Your task to perform on an android device: check the backup settings in the google photos Image 0: 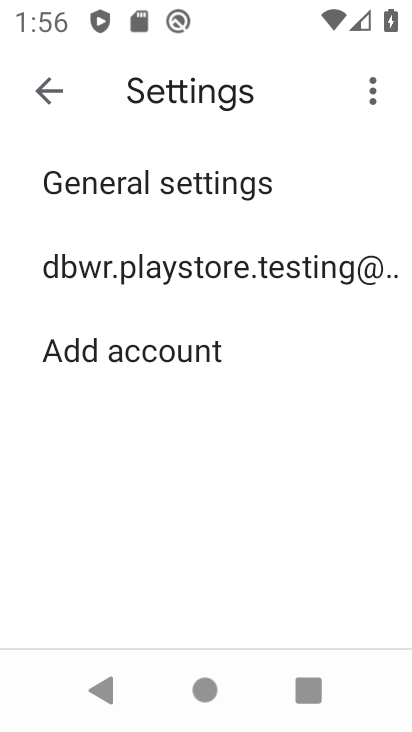
Step 0: press home button
Your task to perform on an android device: check the backup settings in the google photos Image 1: 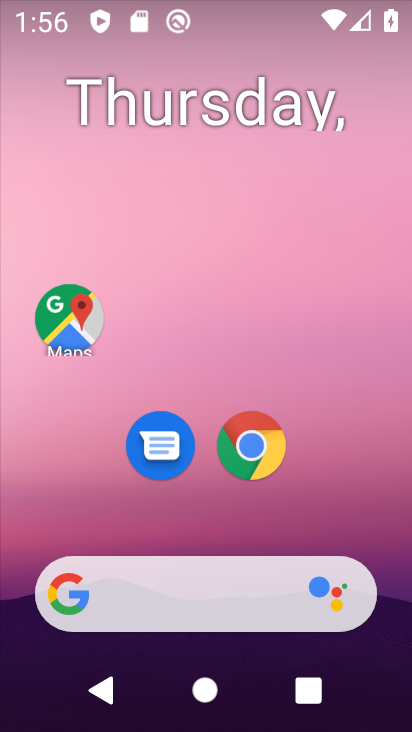
Step 1: drag from (12, 524) to (231, 155)
Your task to perform on an android device: check the backup settings in the google photos Image 2: 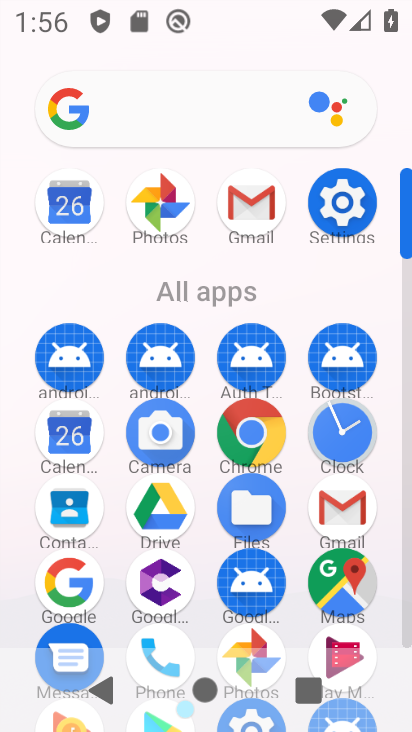
Step 2: click (149, 217)
Your task to perform on an android device: check the backup settings in the google photos Image 3: 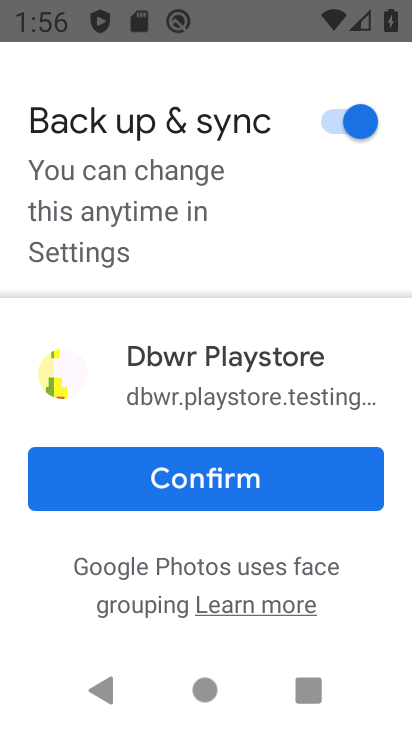
Step 3: click (185, 480)
Your task to perform on an android device: check the backup settings in the google photos Image 4: 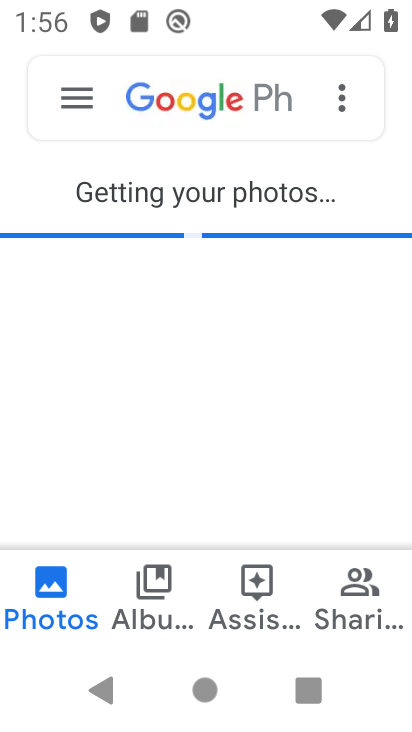
Step 4: click (35, 86)
Your task to perform on an android device: check the backup settings in the google photos Image 5: 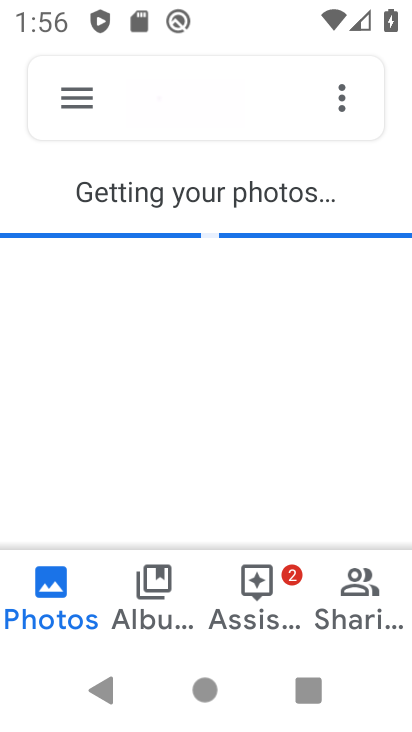
Step 5: click (63, 89)
Your task to perform on an android device: check the backup settings in the google photos Image 6: 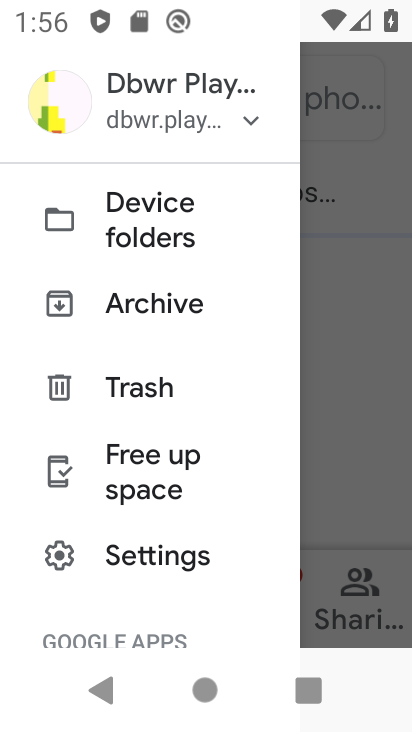
Step 6: click (137, 555)
Your task to perform on an android device: check the backup settings in the google photos Image 7: 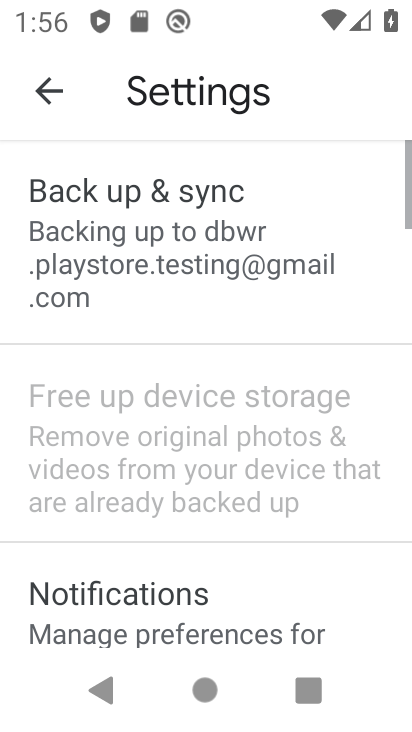
Step 7: click (235, 219)
Your task to perform on an android device: check the backup settings in the google photos Image 8: 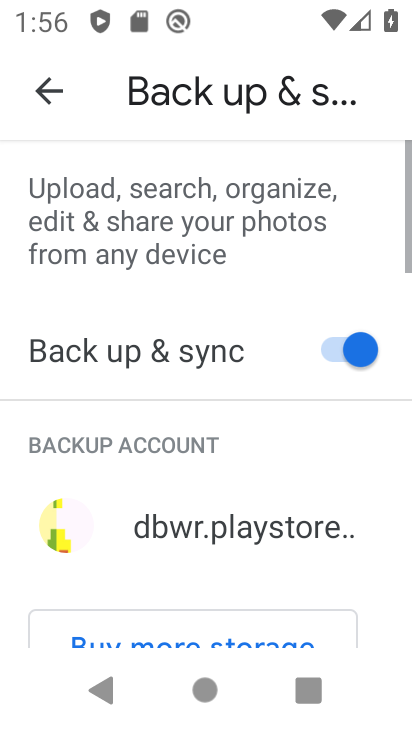
Step 8: click (244, 331)
Your task to perform on an android device: check the backup settings in the google photos Image 9: 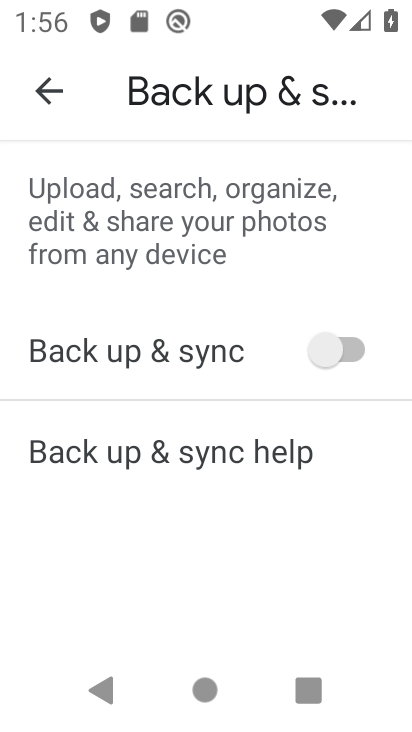
Step 9: click (244, 331)
Your task to perform on an android device: check the backup settings in the google photos Image 10: 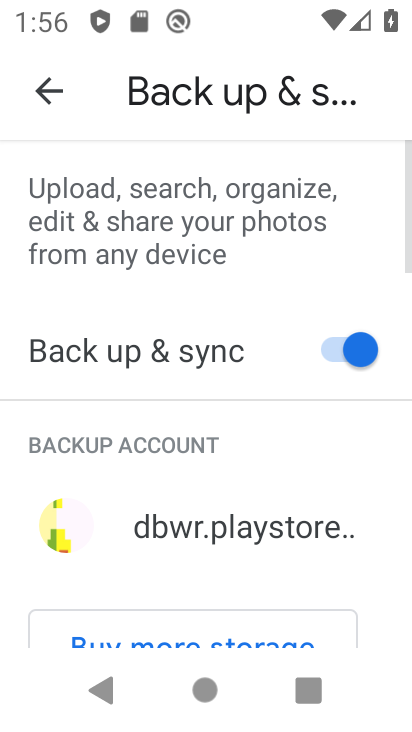
Step 10: task complete